Your task to perform on an android device: turn on sleep mode Image 0: 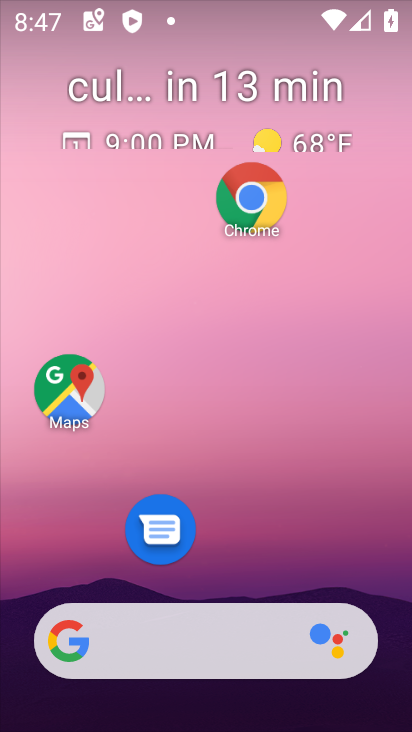
Step 0: drag from (204, 542) to (190, 226)
Your task to perform on an android device: turn on sleep mode Image 1: 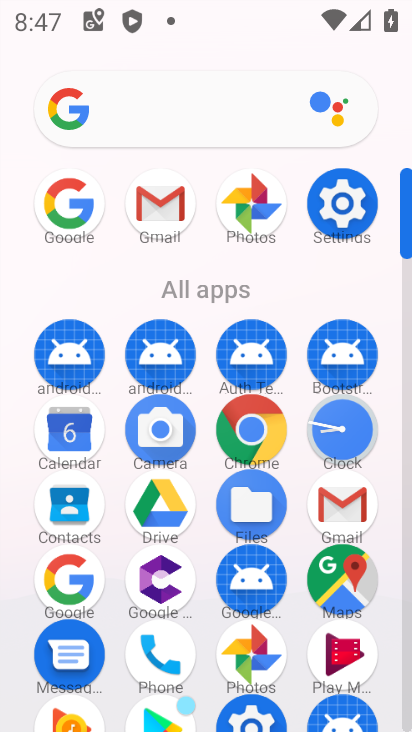
Step 1: click (335, 228)
Your task to perform on an android device: turn on sleep mode Image 2: 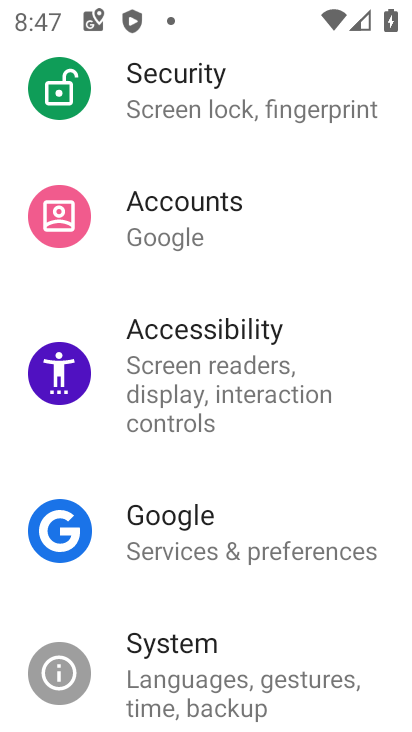
Step 2: drag from (215, 266) to (217, 586)
Your task to perform on an android device: turn on sleep mode Image 3: 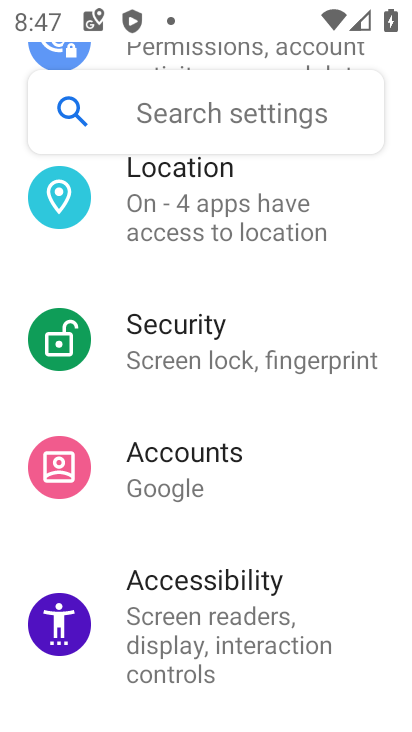
Step 3: drag from (207, 309) to (224, 574)
Your task to perform on an android device: turn on sleep mode Image 4: 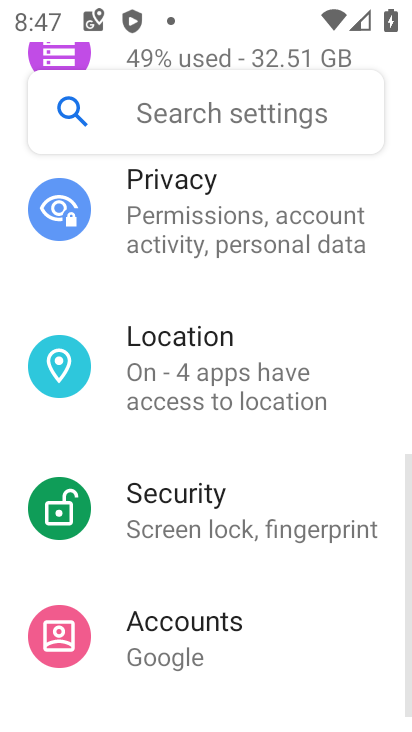
Step 4: drag from (183, 320) to (203, 646)
Your task to perform on an android device: turn on sleep mode Image 5: 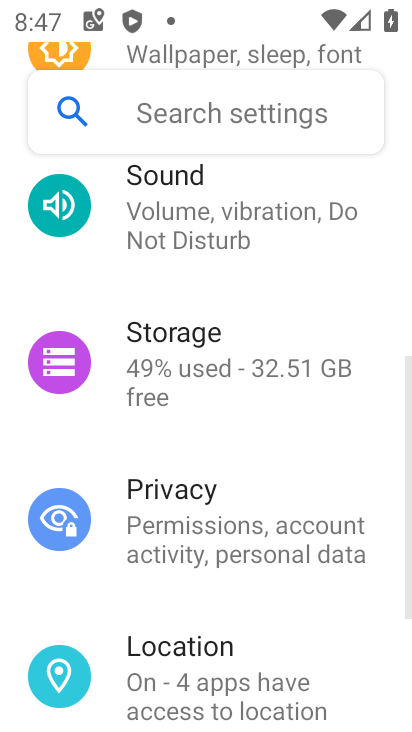
Step 5: drag from (233, 296) to (252, 689)
Your task to perform on an android device: turn on sleep mode Image 6: 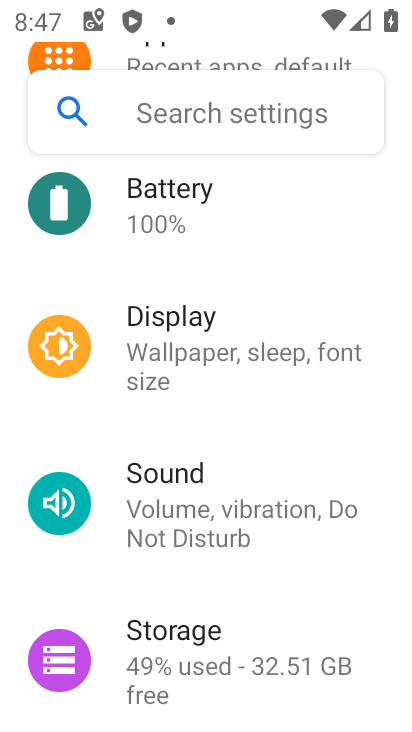
Step 6: click (231, 365)
Your task to perform on an android device: turn on sleep mode Image 7: 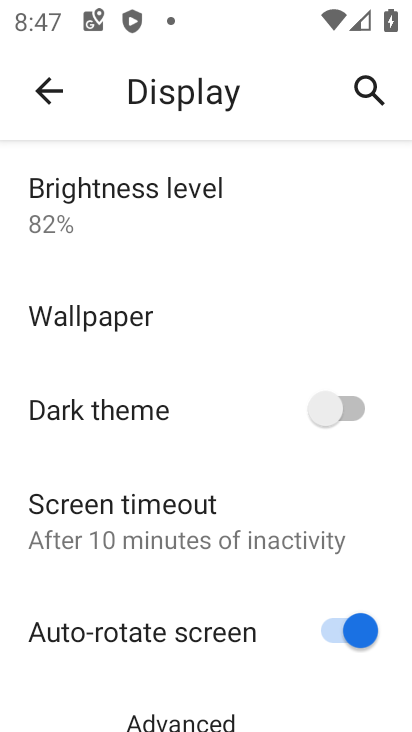
Step 7: drag from (211, 292) to (214, 543)
Your task to perform on an android device: turn on sleep mode Image 8: 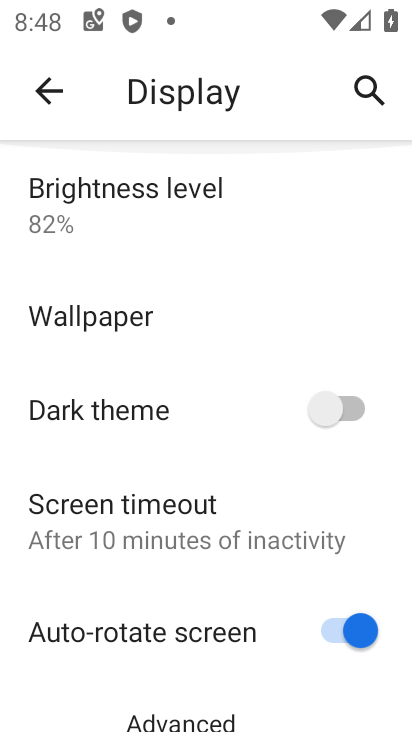
Step 8: drag from (211, 592) to (228, 323)
Your task to perform on an android device: turn on sleep mode Image 9: 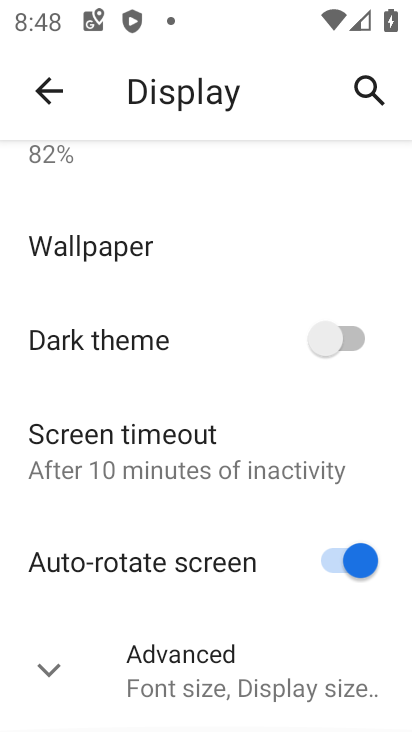
Step 9: click (214, 644)
Your task to perform on an android device: turn on sleep mode Image 10: 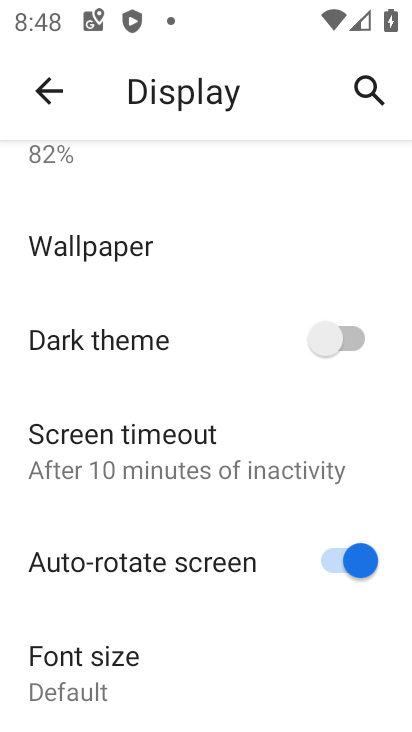
Step 10: click (143, 439)
Your task to perform on an android device: turn on sleep mode Image 11: 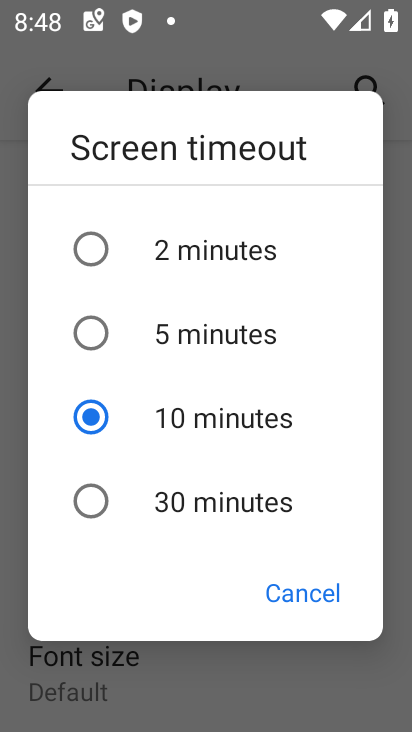
Step 11: click (161, 336)
Your task to perform on an android device: turn on sleep mode Image 12: 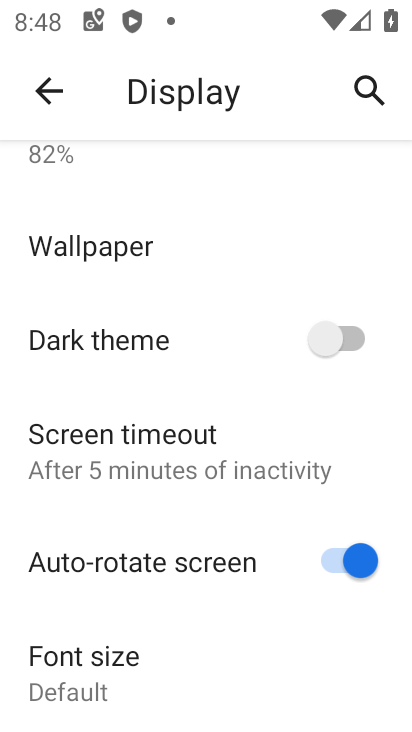
Step 12: task complete